Your task to perform on an android device: turn on notifications settings in the gmail app Image 0: 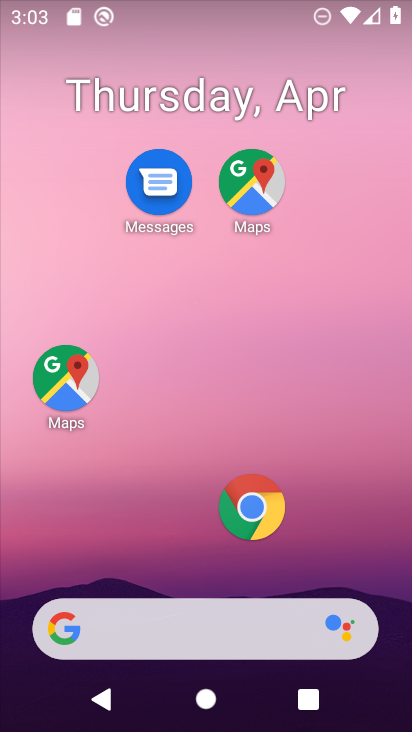
Step 0: drag from (192, 551) to (224, 5)
Your task to perform on an android device: turn on notifications settings in the gmail app Image 1: 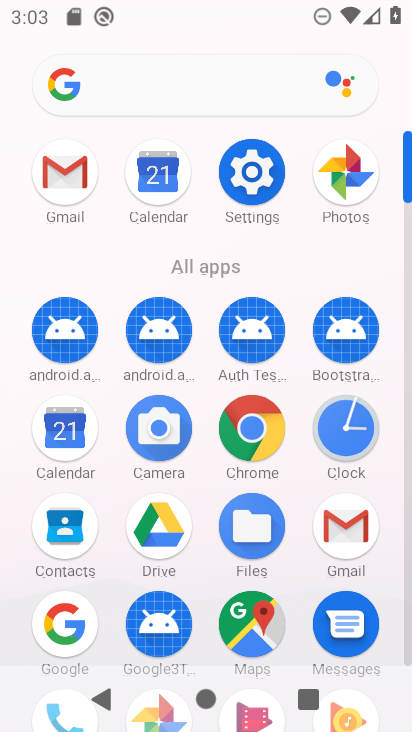
Step 1: click (357, 515)
Your task to perform on an android device: turn on notifications settings in the gmail app Image 2: 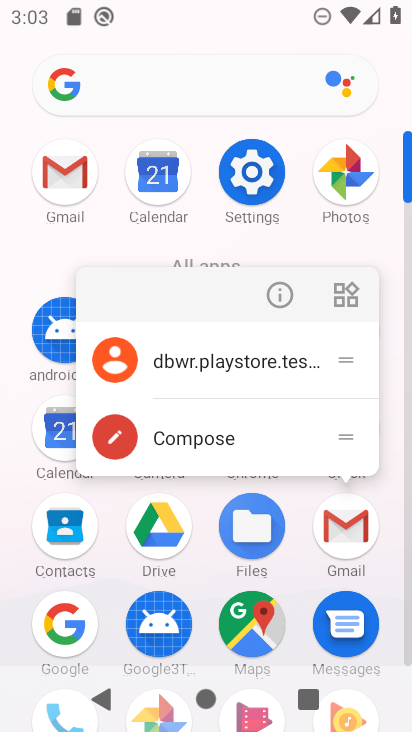
Step 2: click (363, 524)
Your task to perform on an android device: turn on notifications settings in the gmail app Image 3: 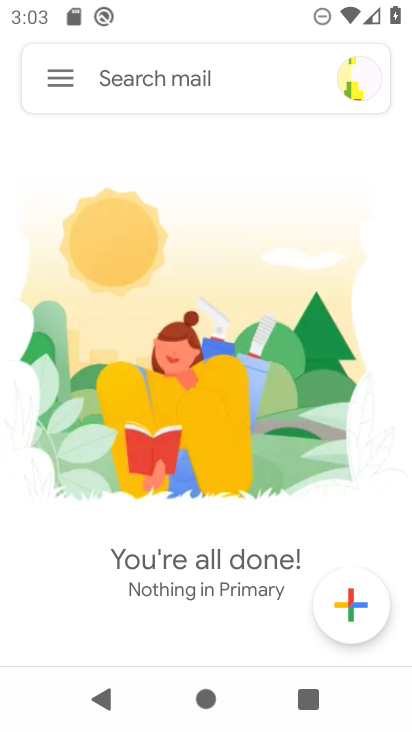
Step 3: click (69, 87)
Your task to perform on an android device: turn on notifications settings in the gmail app Image 4: 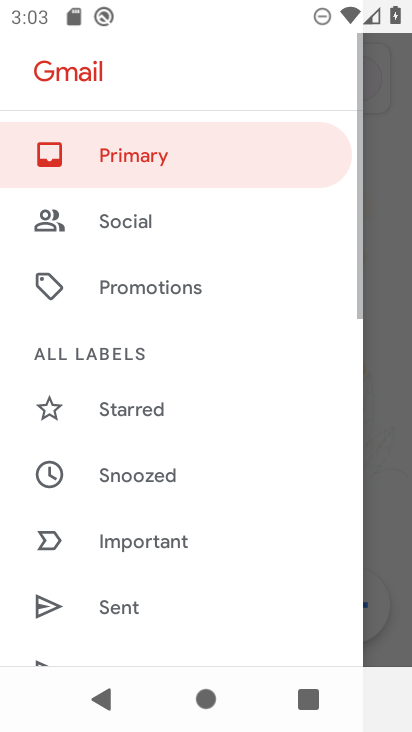
Step 4: drag from (115, 543) to (237, 14)
Your task to perform on an android device: turn on notifications settings in the gmail app Image 5: 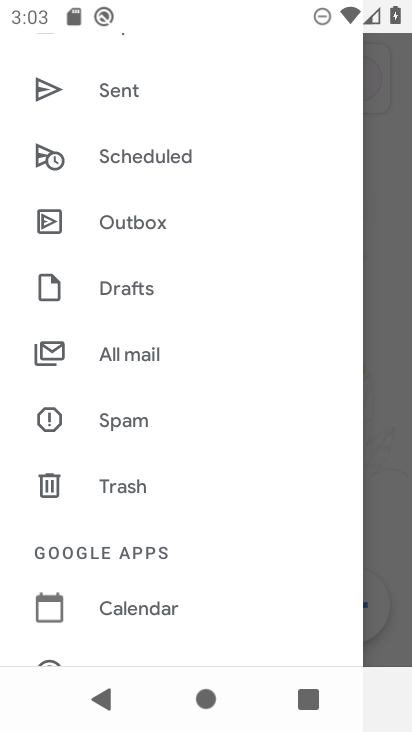
Step 5: drag from (114, 588) to (209, 200)
Your task to perform on an android device: turn on notifications settings in the gmail app Image 6: 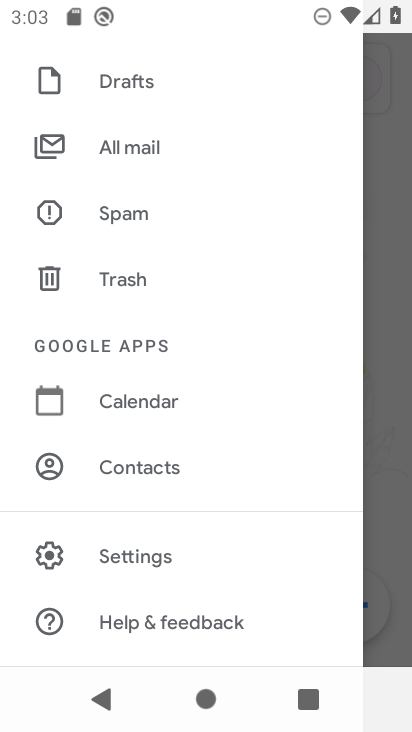
Step 6: click (150, 558)
Your task to perform on an android device: turn on notifications settings in the gmail app Image 7: 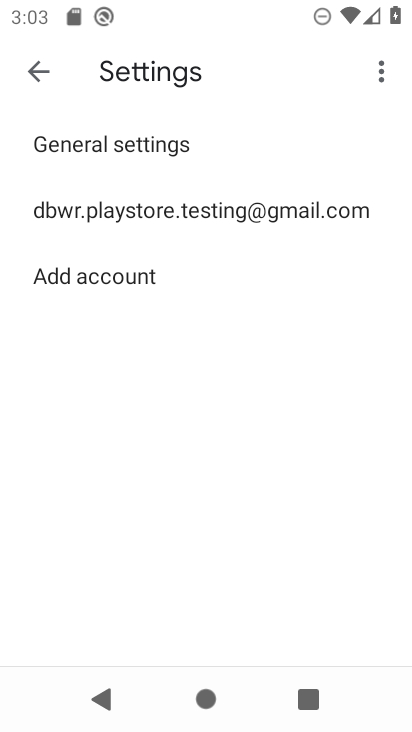
Step 7: click (156, 134)
Your task to perform on an android device: turn on notifications settings in the gmail app Image 8: 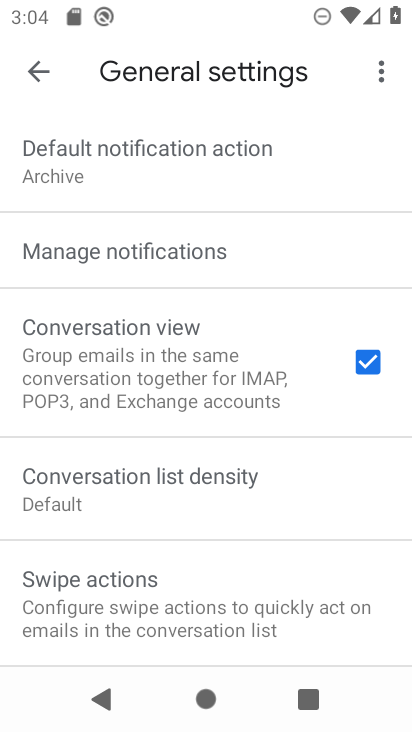
Step 8: click (122, 253)
Your task to perform on an android device: turn on notifications settings in the gmail app Image 9: 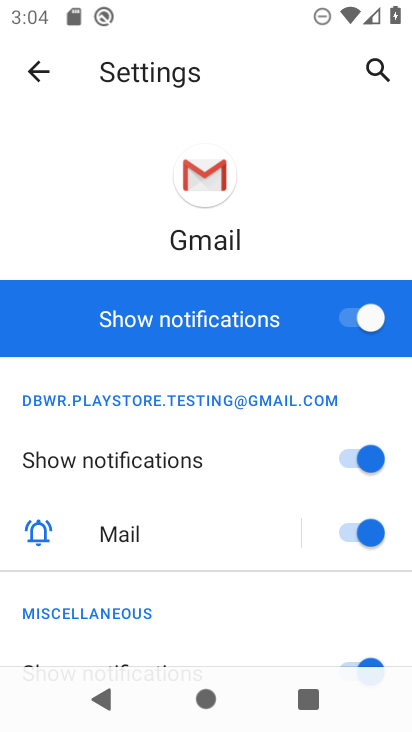
Step 9: task complete